Your task to perform on an android device: Open Maps and search for coffee Image 0: 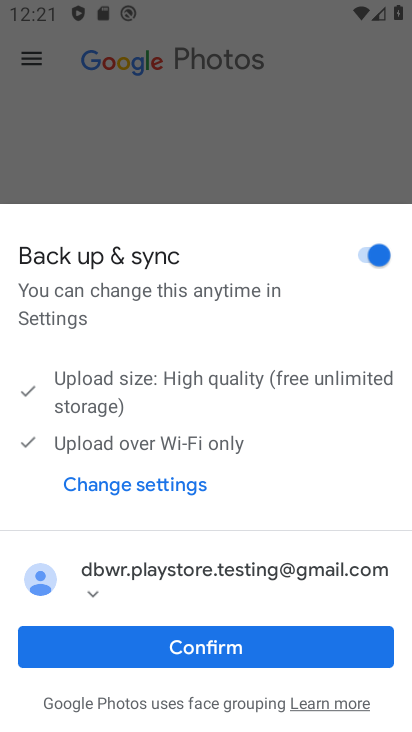
Step 0: press home button
Your task to perform on an android device: Open Maps and search for coffee Image 1: 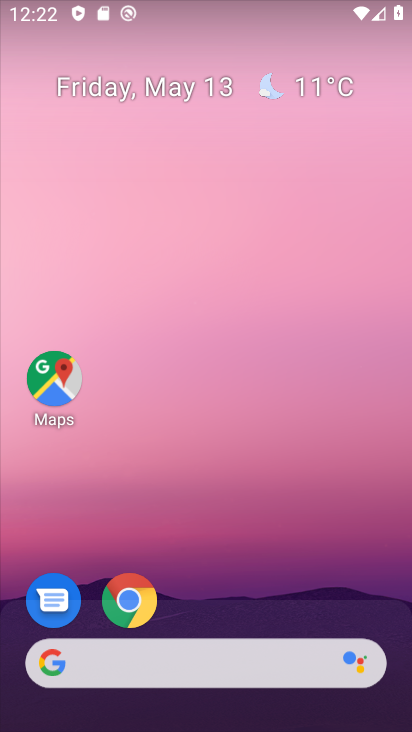
Step 1: click (52, 391)
Your task to perform on an android device: Open Maps and search for coffee Image 2: 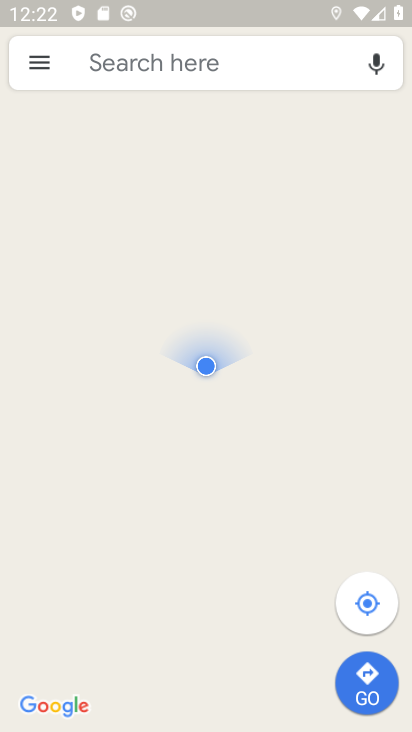
Step 2: click (161, 69)
Your task to perform on an android device: Open Maps and search for coffee Image 3: 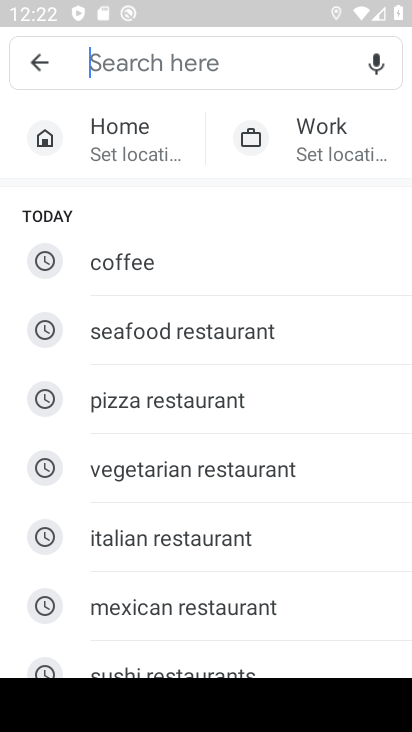
Step 3: click (107, 260)
Your task to perform on an android device: Open Maps and search for coffee Image 4: 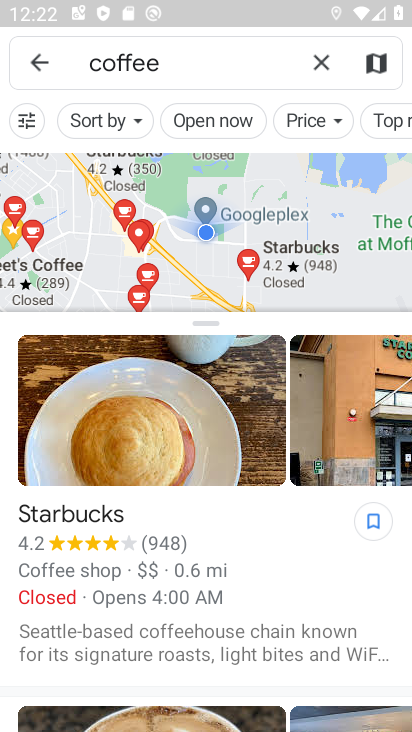
Step 4: task complete